Your task to perform on an android device: Open Youtube and go to the subscriptions tab Image 0: 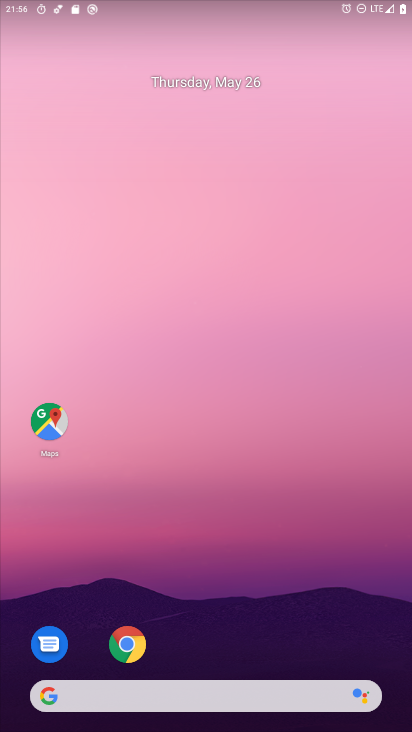
Step 0: drag from (219, 576) to (242, 162)
Your task to perform on an android device: Open Youtube and go to the subscriptions tab Image 1: 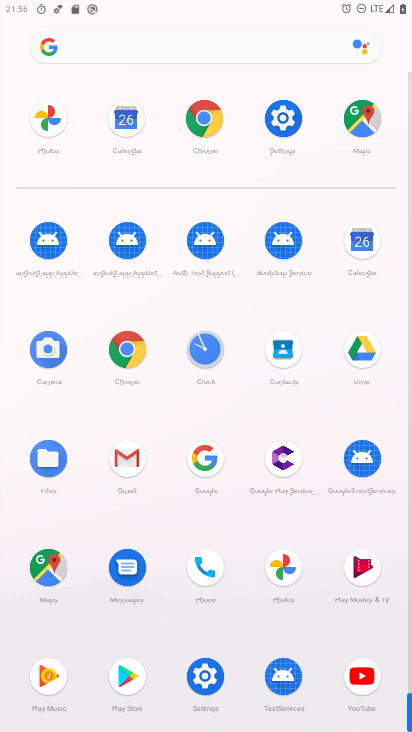
Step 1: click (359, 690)
Your task to perform on an android device: Open Youtube and go to the subscriptions tab Image 2: 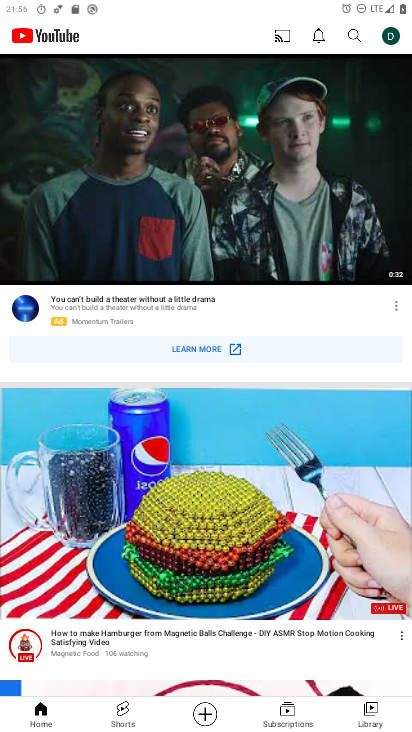
Step 2: click (283, 717)
Your task to perform on an android device: Open Youtube and go to the subscriptions tab Image 3: 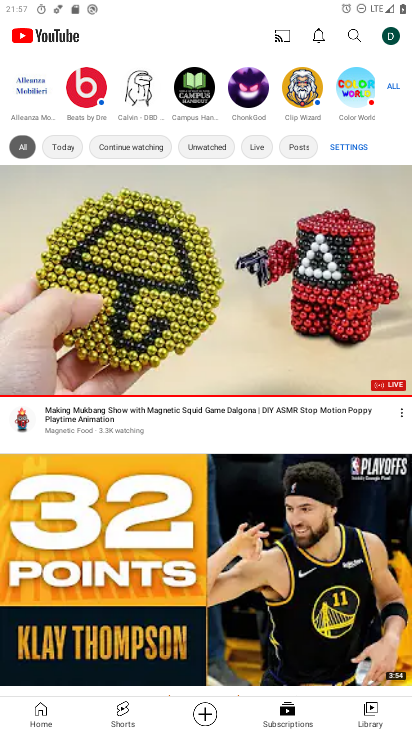
Step 3: task complete